Your task to perform on an android device: Open notification settings Image 0: 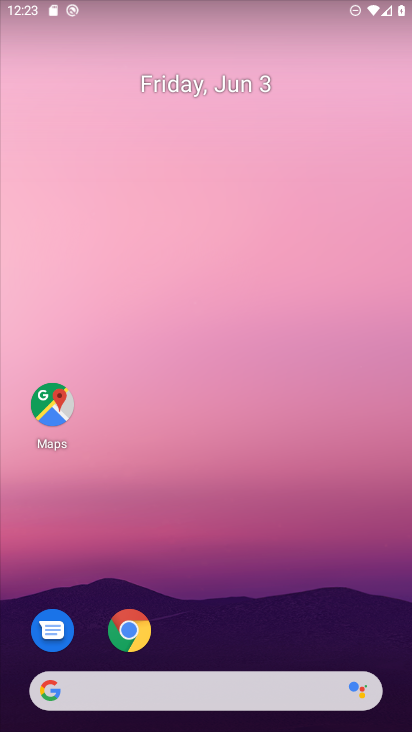
Step 0: drag from (252, 645) to (217, 267)
Your task to perform on an android device: Open notification settings Image 1: 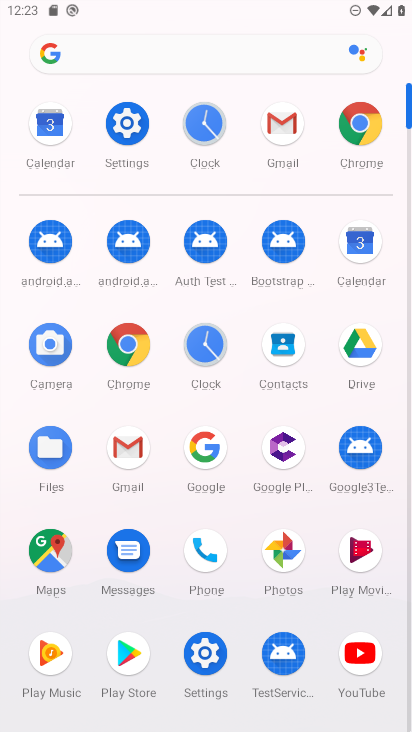
Step 1: click (134, 121)
Your task to perform on an android device: Open notification settings Image 2: 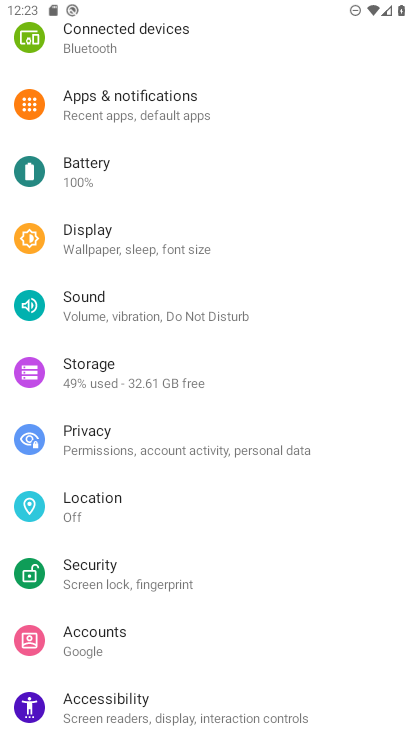
Step 2: click (177, 117)
Your task to perform on an android device: Open notification settings Image 3: 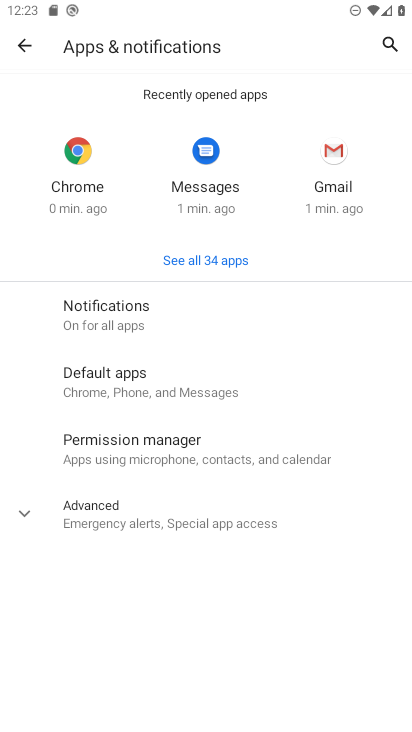
Step 3: click (217, 323)
Your task to perform on an android device: Open notification settings Image 4: 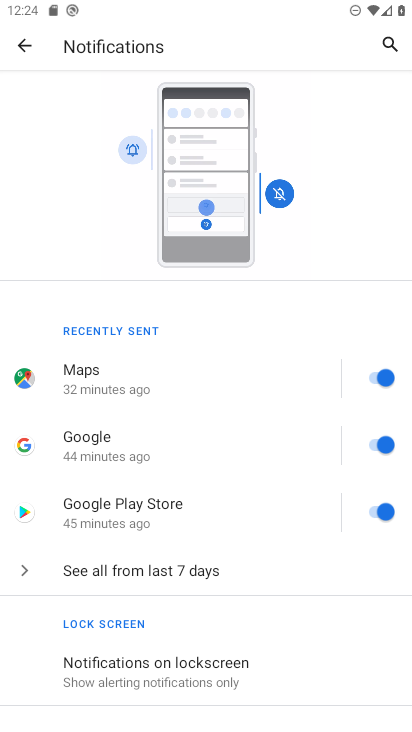
Step 4: task complete